Your task to perform on an android device: What is the news today? Image 0: 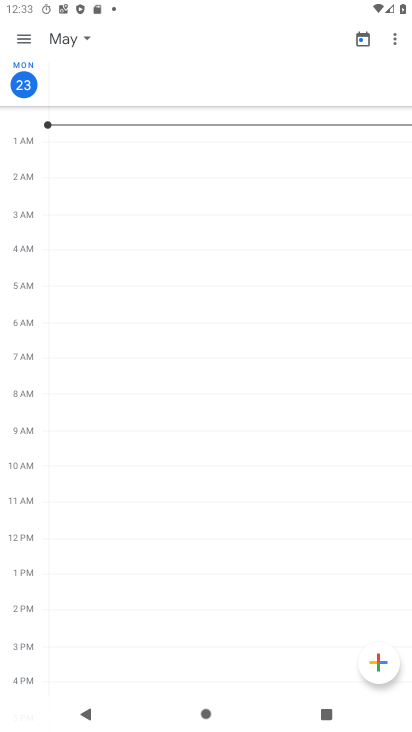
Step 0: press home button
Your task to perform on an android device: What is the news today? Image 1: 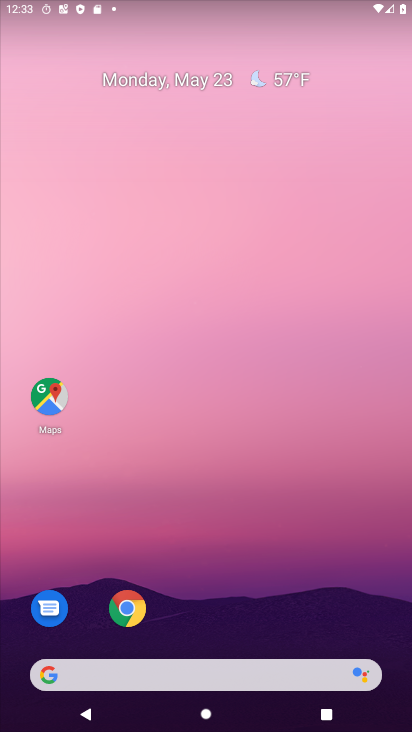
Step 1: drag from (339, 497) to (311, 183)
Your task to perform on an android device: What is the news today? Image 2: 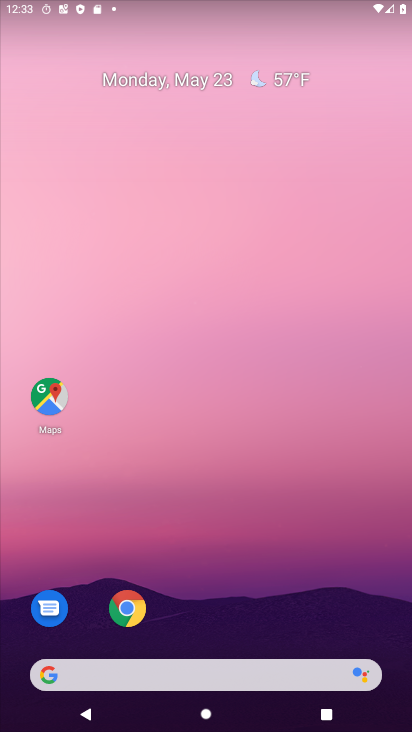
Step 2: drag from (322, 560) to (289, 78)
Your task to perform on an android device: What is the news today? Image 3: 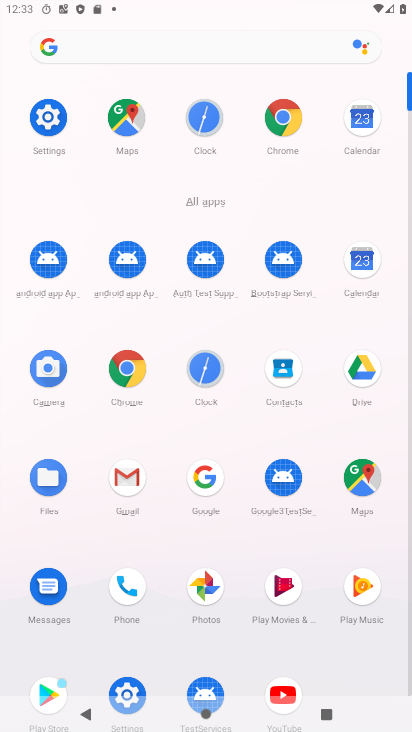
Step 3: click (280, 118)
Your task to perform on an android device: What is the news today? Image 4: 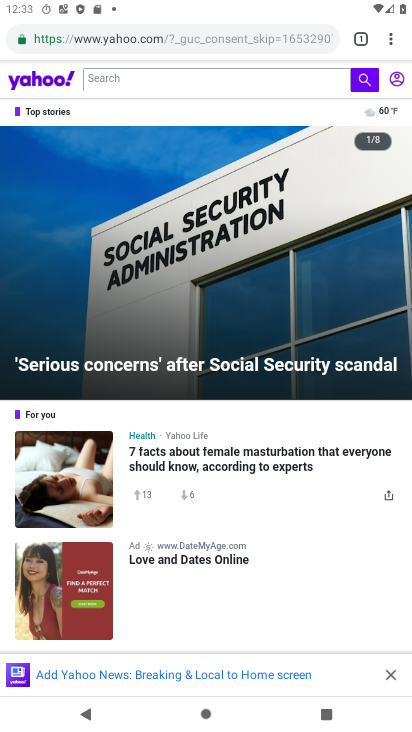
Step 4: click (130, 32)
Your task to perform on an android device: What is the news today? Image 5: 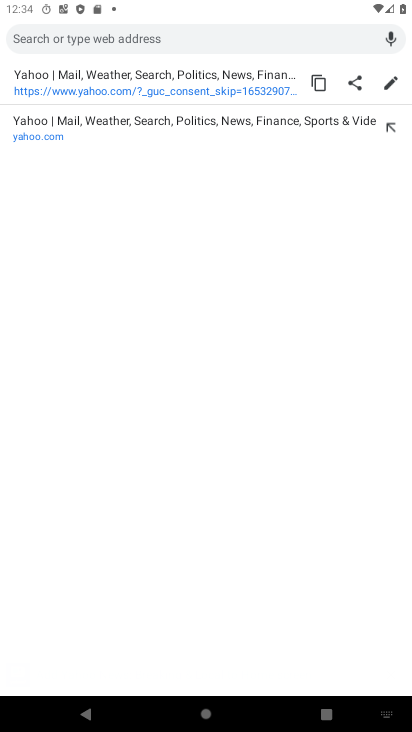
Step 5: type "what is the news today"
Your task to perform on an android device: What is the news today? Image 6: 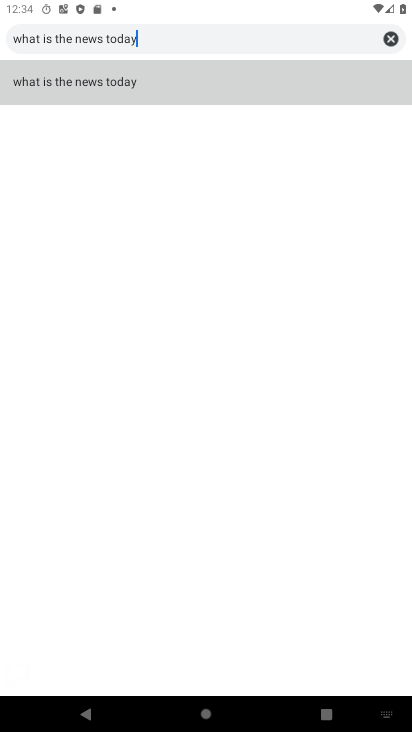
Step 6: click (112, 94)
Your task to perform on an android device: What is the news today? Image 7: 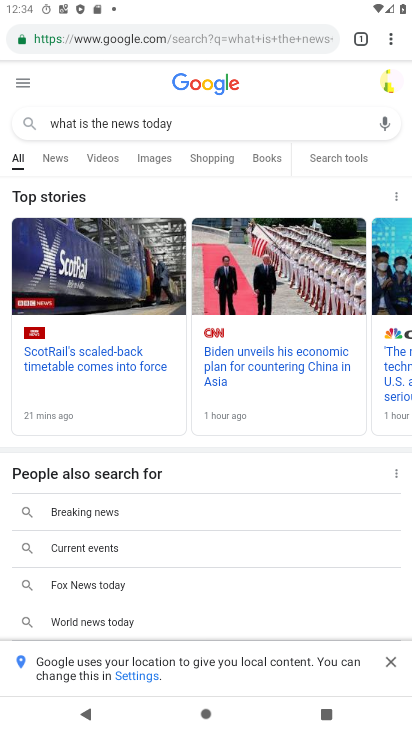
Step 7: task complete